Your task to perform on an android device: Open location settings Image 0: 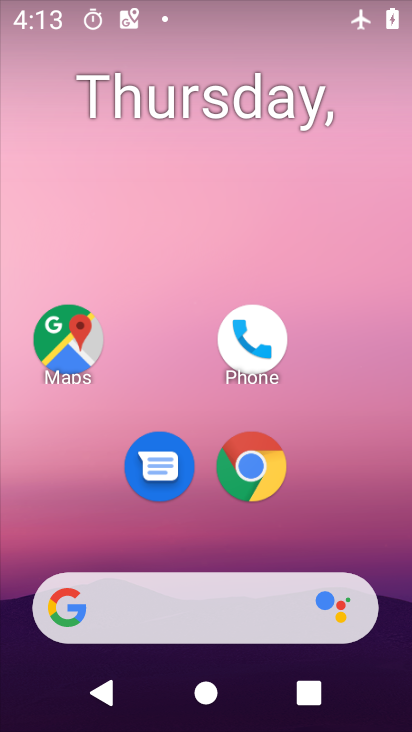
Step 0: drag from (222, 489) to (267, 127)
Your task to perform on an android device: Open location settings Image 1: 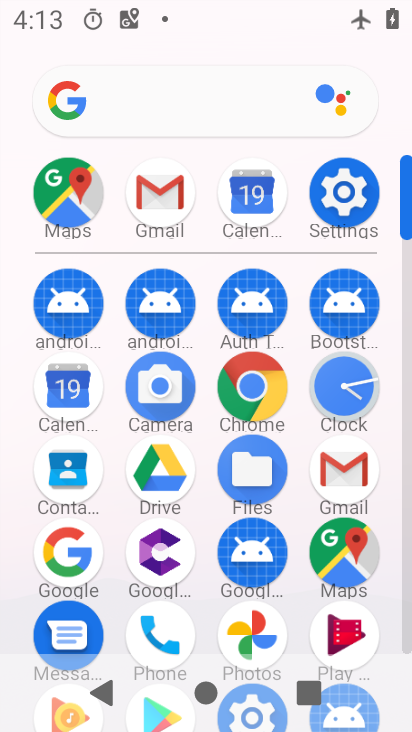
Step 1: click (334, 202)
Your task to perform on an android device: Open location settings Image 2: 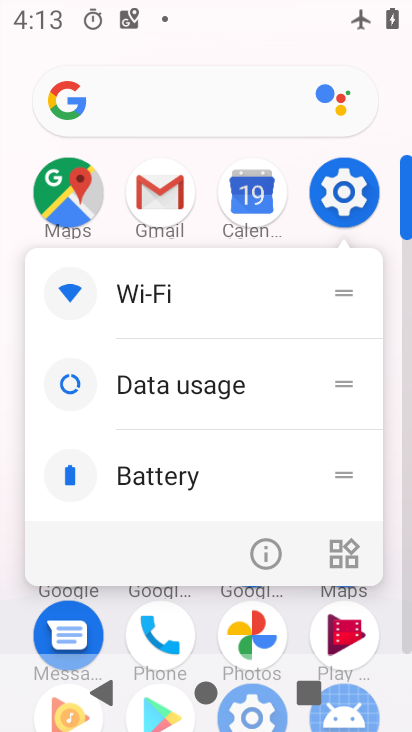
Step 2: click (262, 554)
Your task to perform on an android device: Open location settings Image 3: 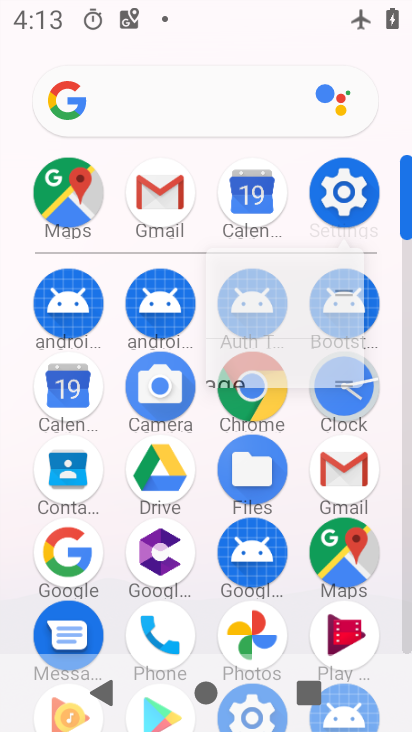
Step 3: click (262, 553)
Your task to perform on an android device: Open location settings Image 4: 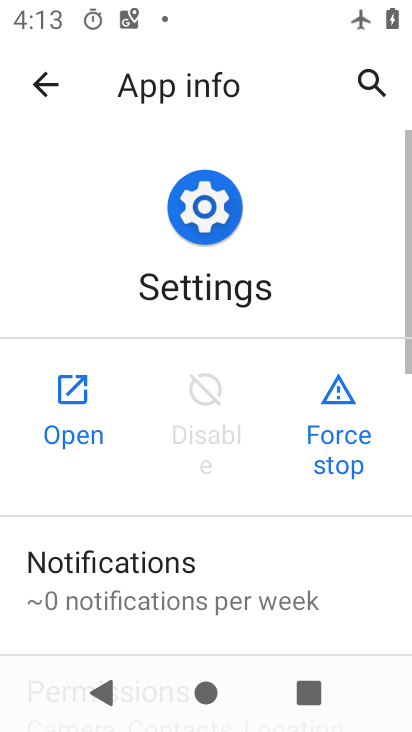
Step 4: click (55, 398)
Your task to perform on an android device: Open location settings Image 5: 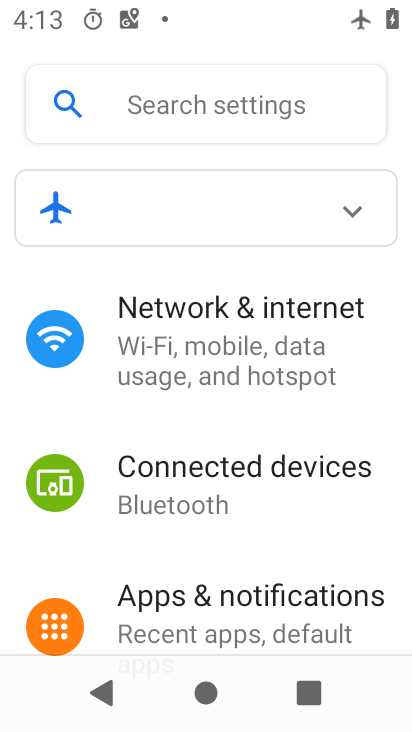
Step 5: drag from (206, 540) to (251, 72)
Your task to perform on an android device: Open location settings Image 6: 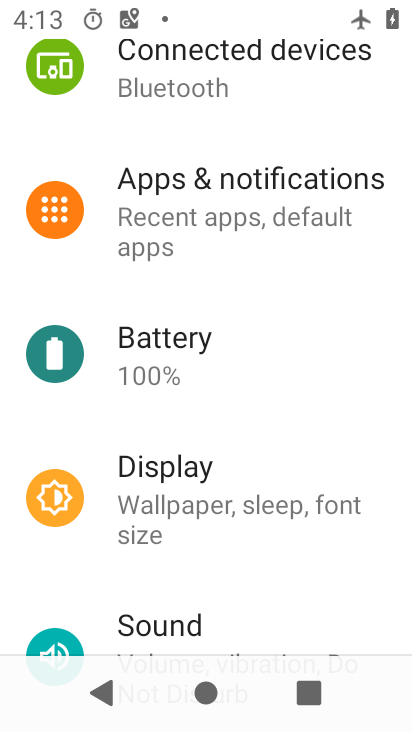
Step 6: drag from (203, 579) to (231, 142)
Your task to perform on an android device: Open location settings Image 7: 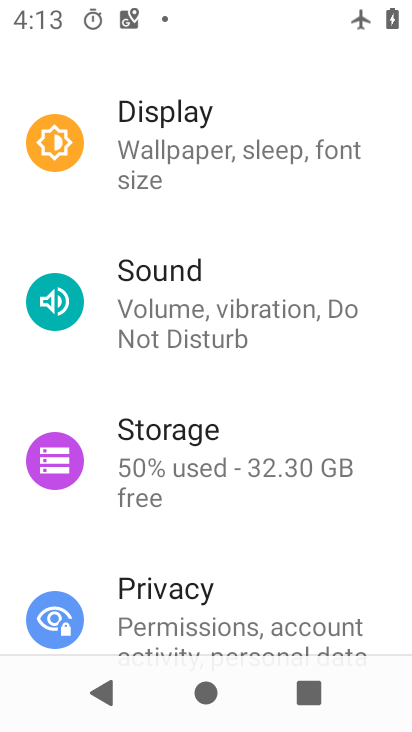
Step 7: drag from (213, 529) to (255, 109)
Your task to perform on an android device: Open location settings Image 8: 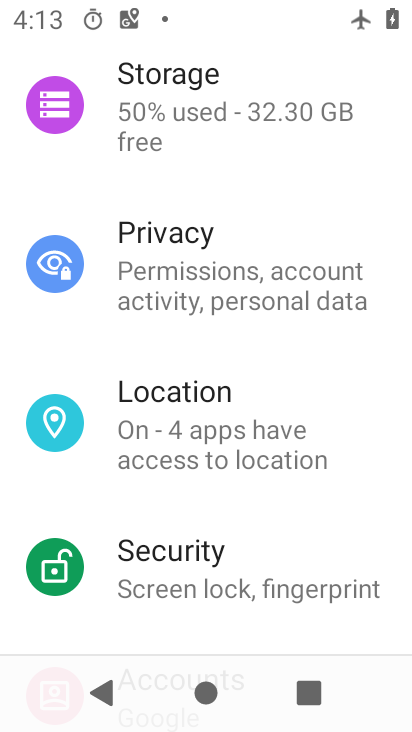
Step 8: click (182, 434)
Your task to perform on an android device: Open location settings Image 9: 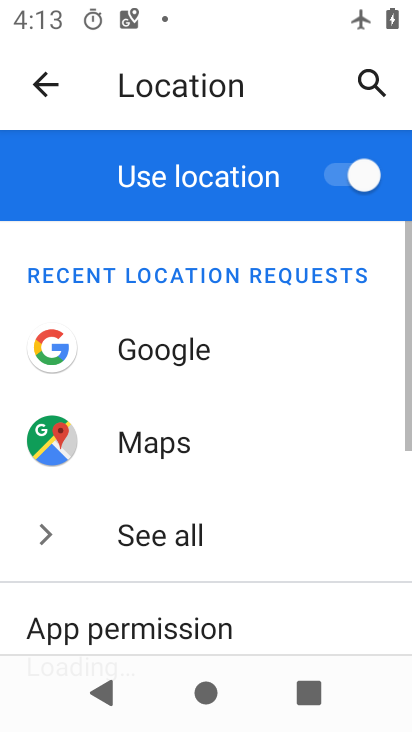
Step 9: drag from (234, 520) to (260, 96)
Your task to perform on an android device: Open location settings Image 10: 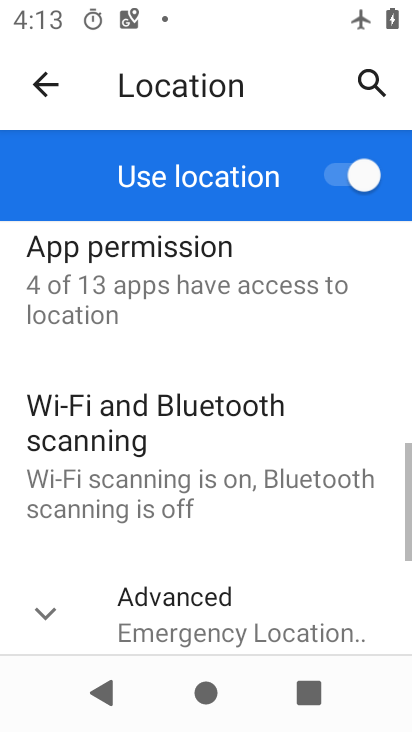
Step 10: click (139, 624)
Your task to perform on an android device: Open location settings Image 11: 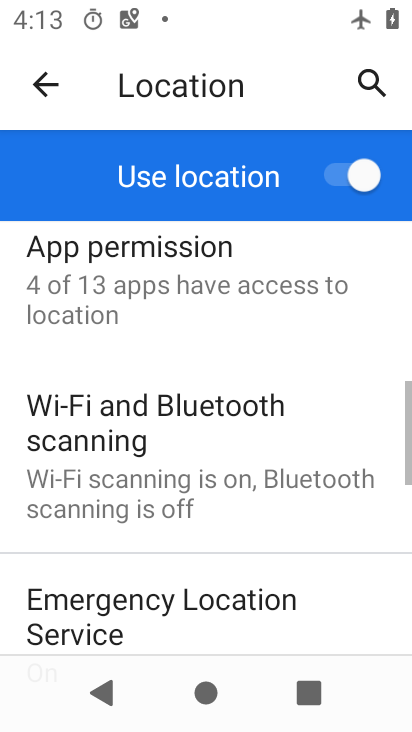
Step 11: task complete